Your task to perform on an android device: toggle data saver in the chrome app Image 0: 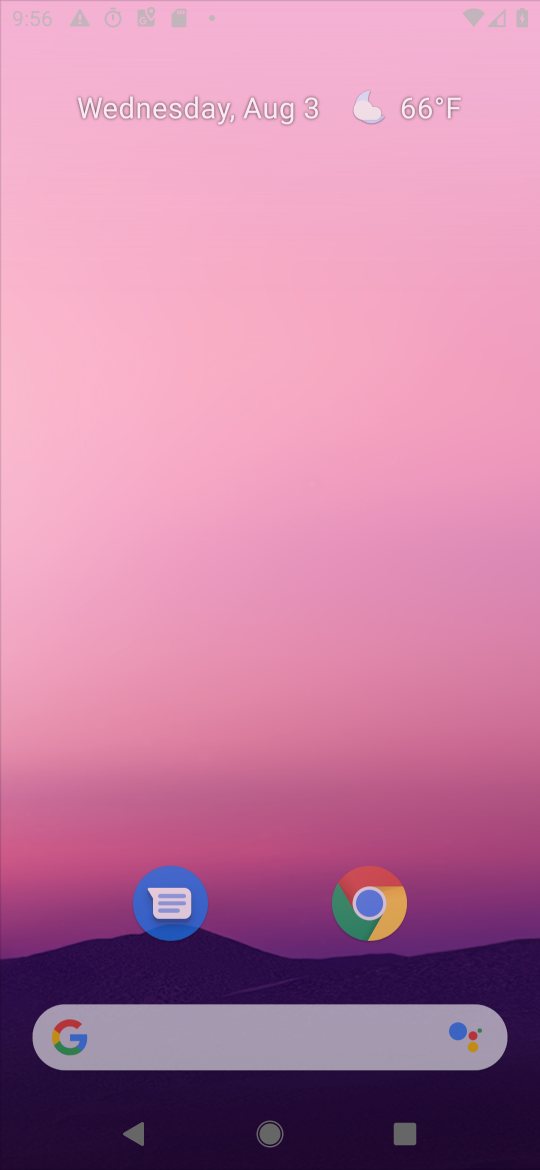
Step 0: press home button
Your task to perform on an android device: toggle data saver in the chrome app Image 1: 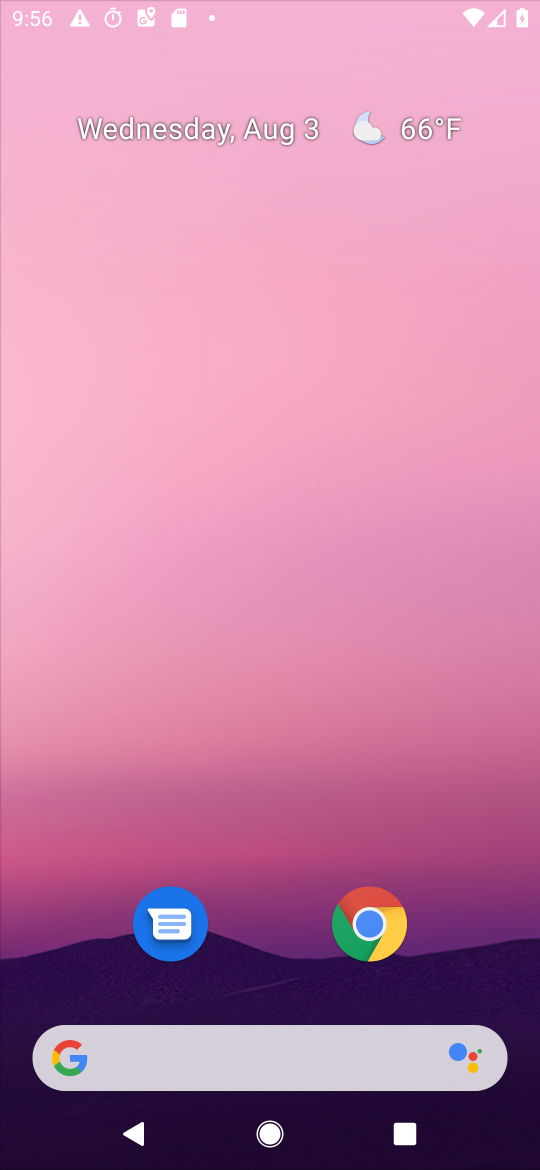
Step 1: press home button
Your task to perform on an android device: toggle data saver in the chrome app Image 2: 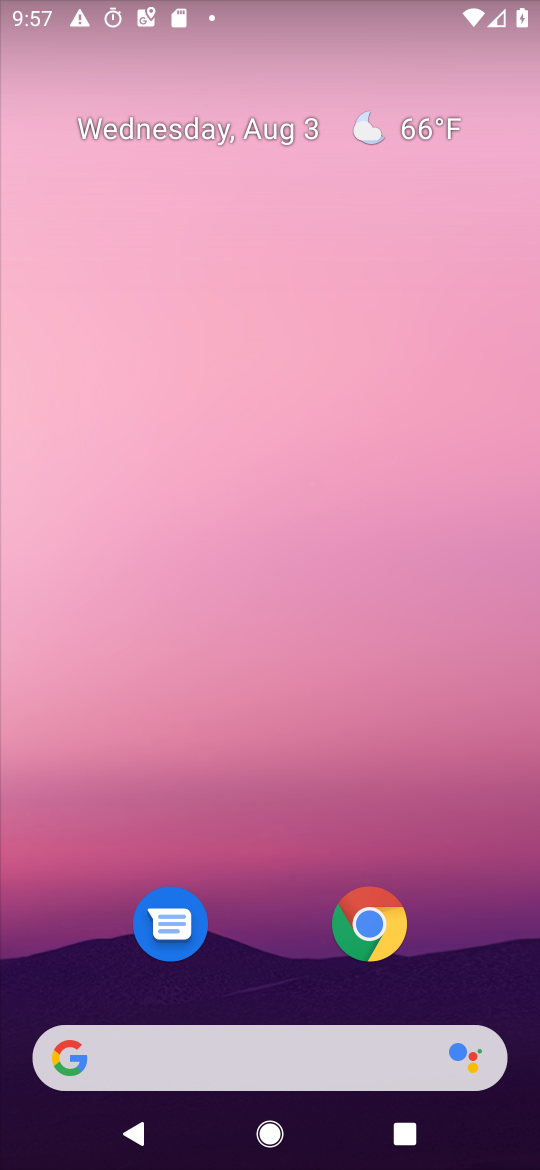
Step 2: drag from (286, 974) to (308, 192)
Your task to perform on an android device: toggle data saver in the chrome app Image 3: 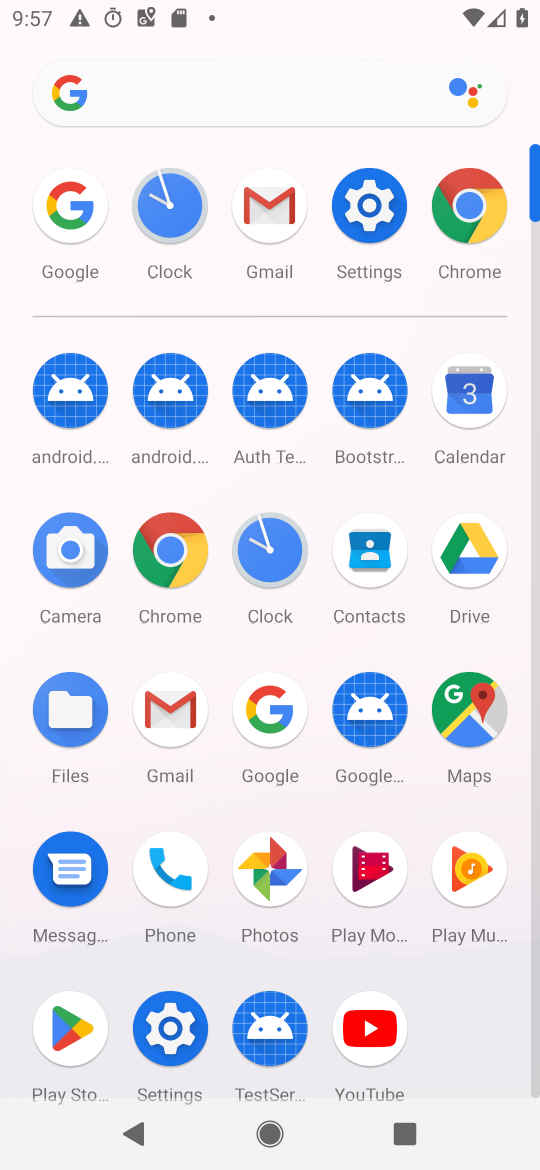
Step 3: click (465, 198)
Your task to perform on an android device: toggle data saver in the chrome app Image 4: 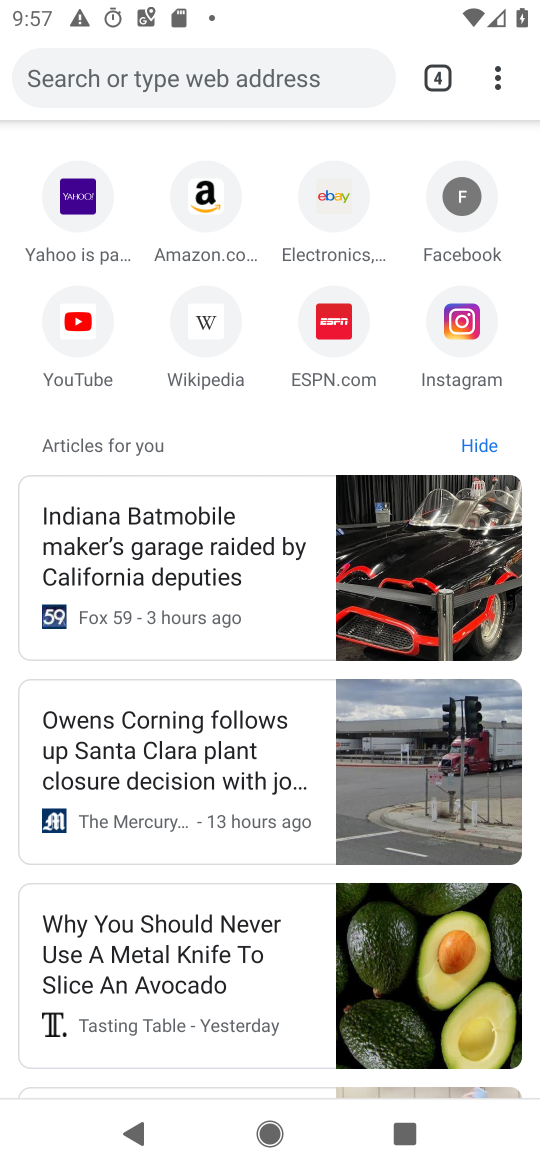
Step 4: click (498, 76)
Your task to perform on an android device: toggle data saver in the chrome app Image 5: 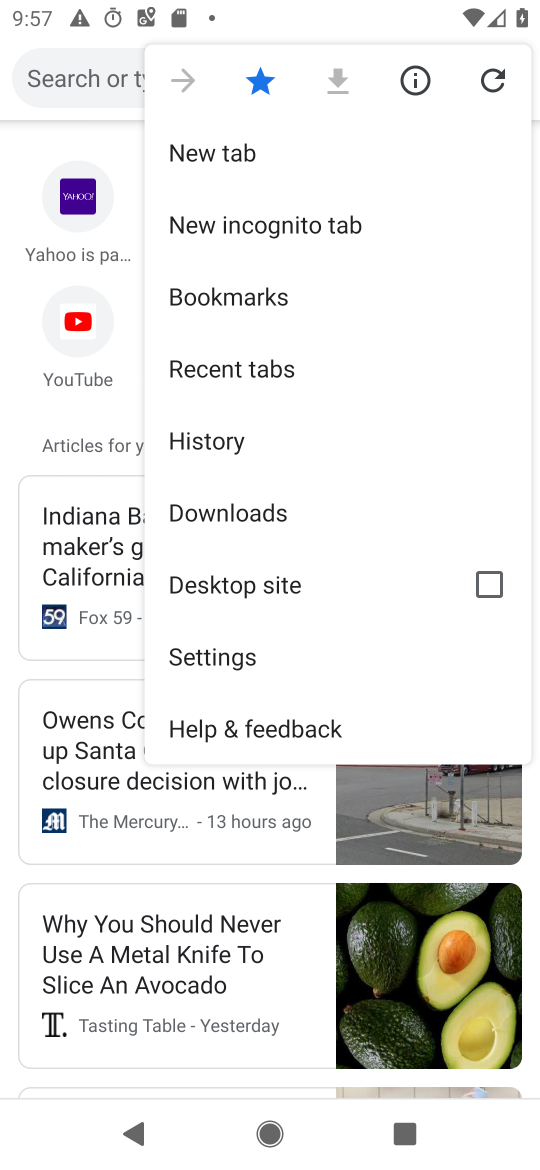
Step 5: click (273, 655)
Your task to perform on an android device: toggle data saver in the chrome app Image 6: 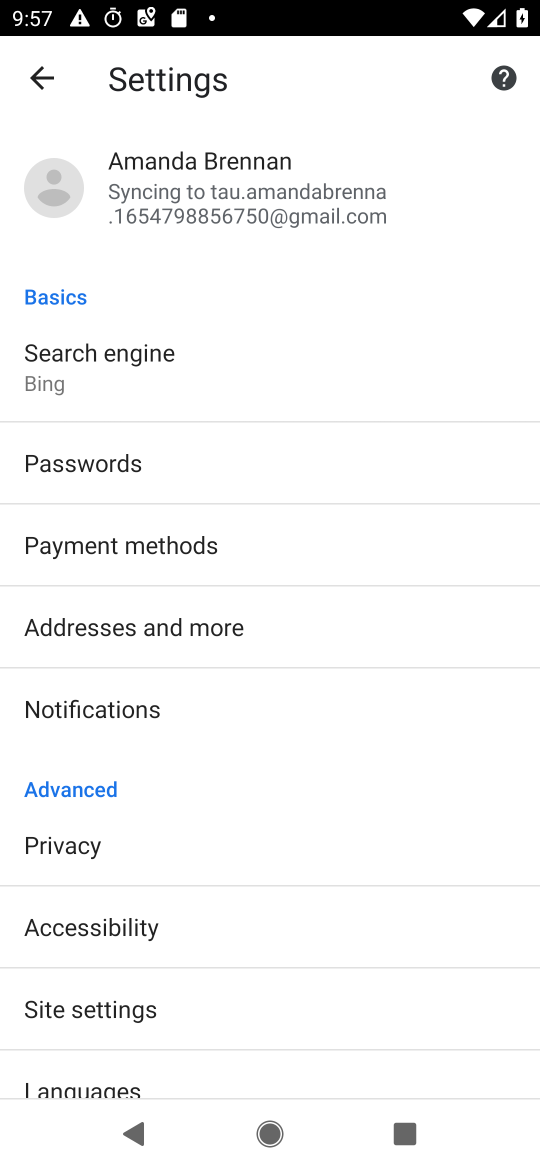
Step 6: drag from (181, 1049) to (235, 358)
Your task to perform on an android device: toggle data saver in the chrome app Image 7: 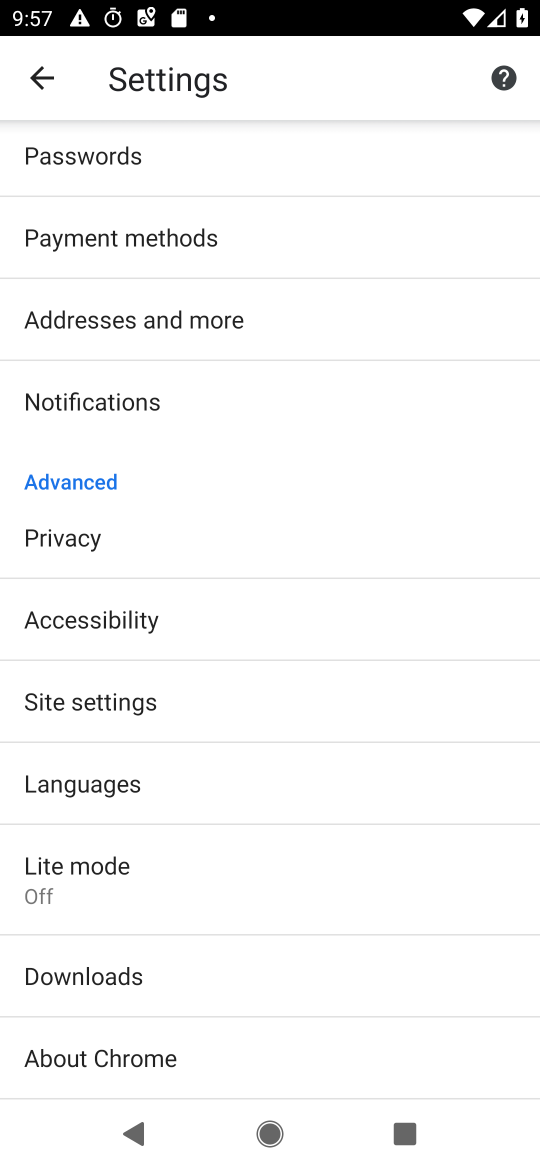
Step 7: click (100, 888)
Your task to perform on an android device: toggle data saver in the chrome app Image 8: 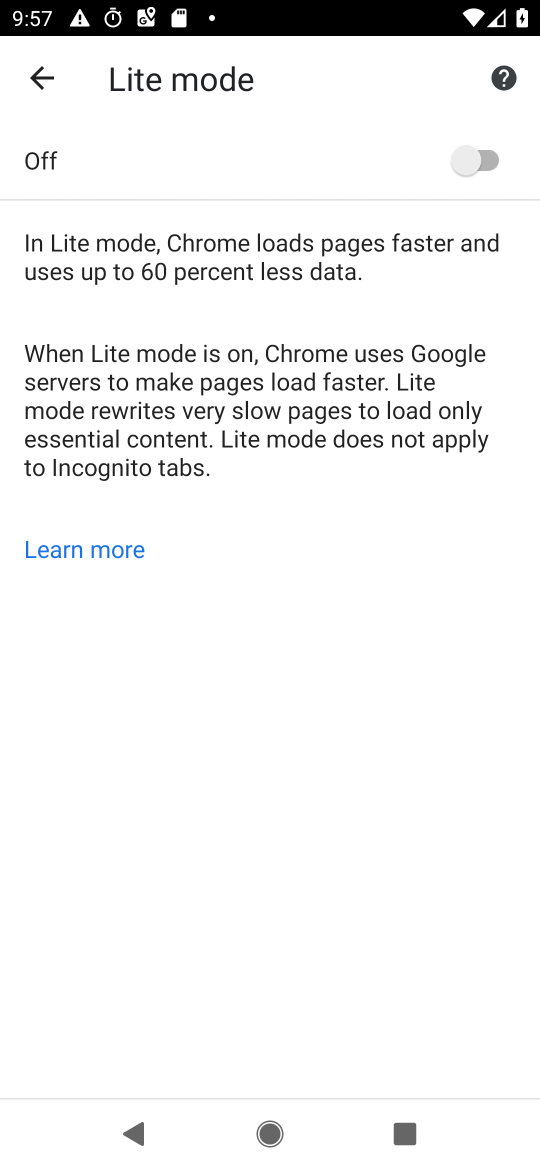
Step 8: click (493, 154)
Your task to perform on an android device: toggle data saver in the chrome app Image 9: 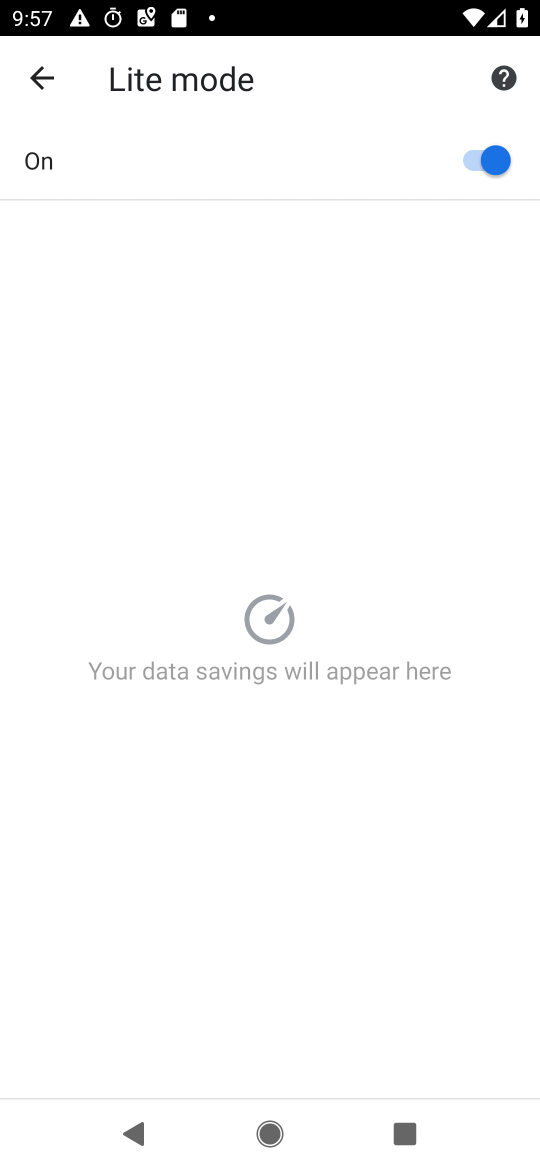
Step 9: task complete